Your task to perform on an android device: Go to Reddit.com Image 0: 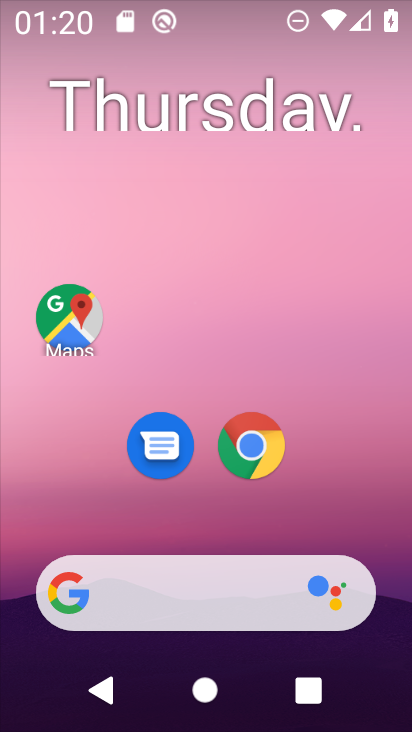
Step 0: click (186, 615)
Your task to perform on an android device: Go to Reddit.com Image 1: 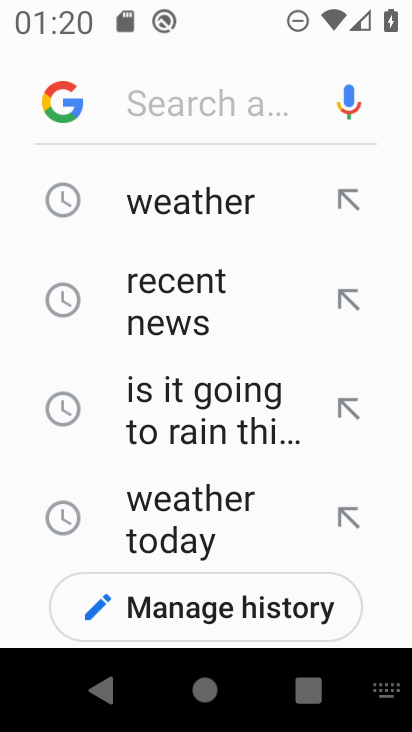
Step 1: type "reddit.com"
Your task to perform on an android device: Go to Reddit.com Image 2: 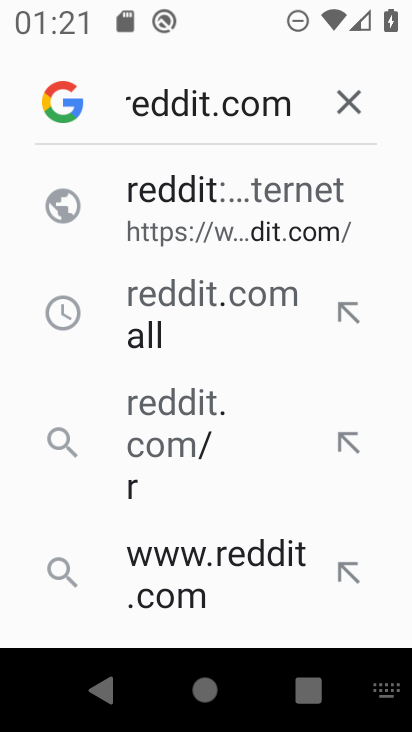
Step 2: click (178, 224)
Your task to perform on an android device: Go to Reddit.com Image 3: 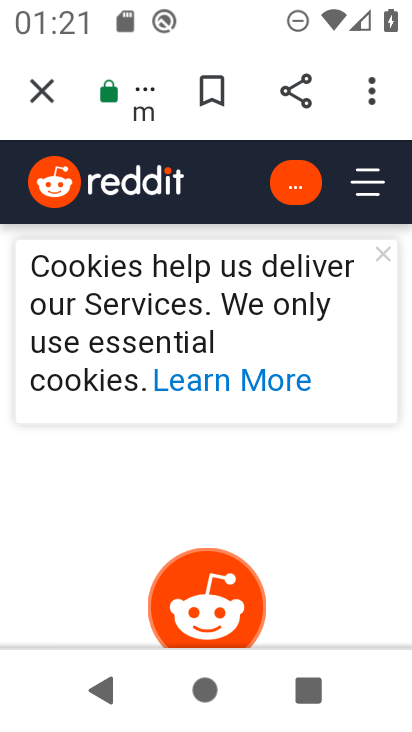
Step 3: task complete